Your task to perform on an android device: search for starred emails in the gmail app Image 0: 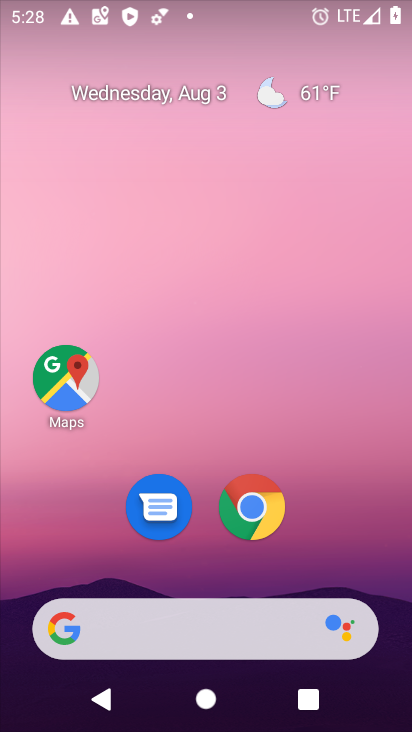
Step 0: drag from (323, 504) to (377, 96)
Your task to perform on an android device: search for starred emails in the gmail app Image 1: 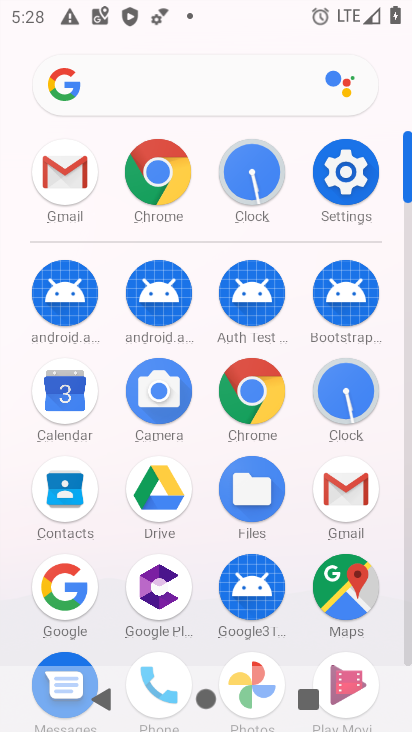
Step 1: click (356, 492)
Your task to perform on an android device: search for starred emails in the gmail app Image 2: 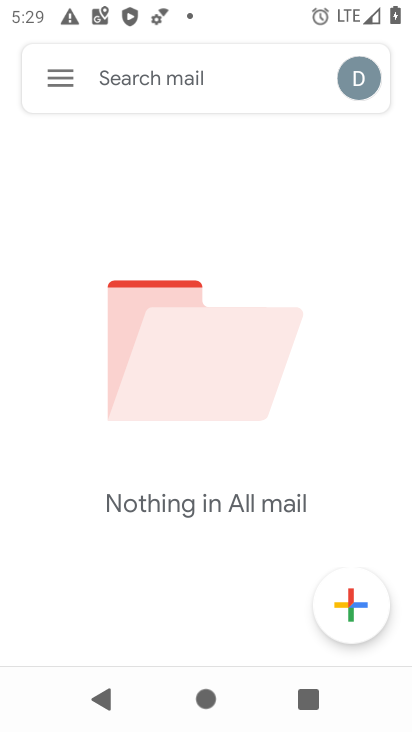
Step 2: click (66, 72)
Your task to perform on an android device: search for starred emails in the gmail app Image 3: 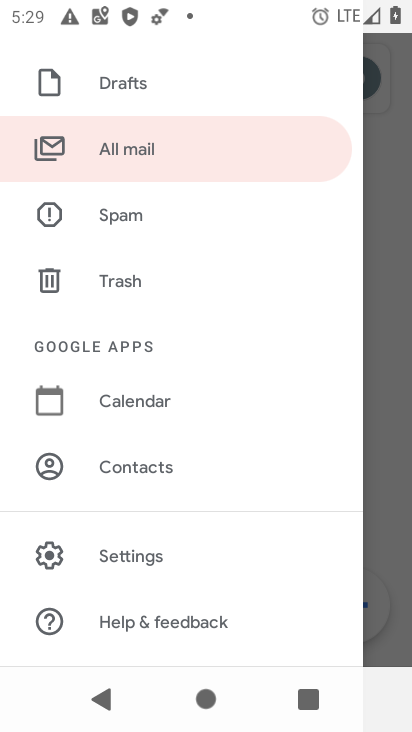
Step 3: drag from (234, 249) to (151, 617)
Your task to perform on an android device: search for starred emails in the gmail app Image 4: 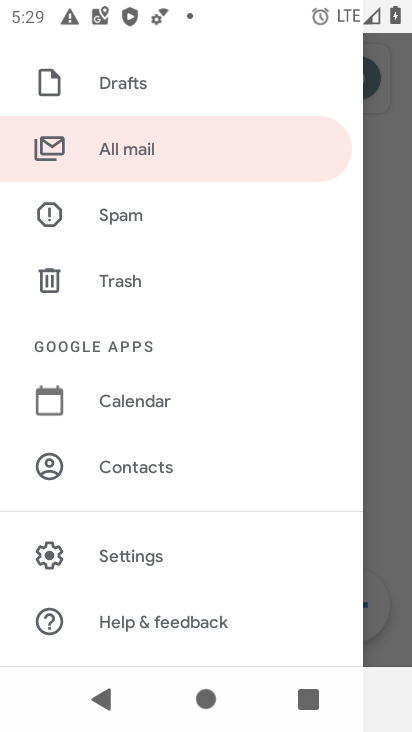
Step 4: drag from (126, 173) to (136, 606)
Your task to perform on an android device: search for starred emails in the gmail app Image 5: 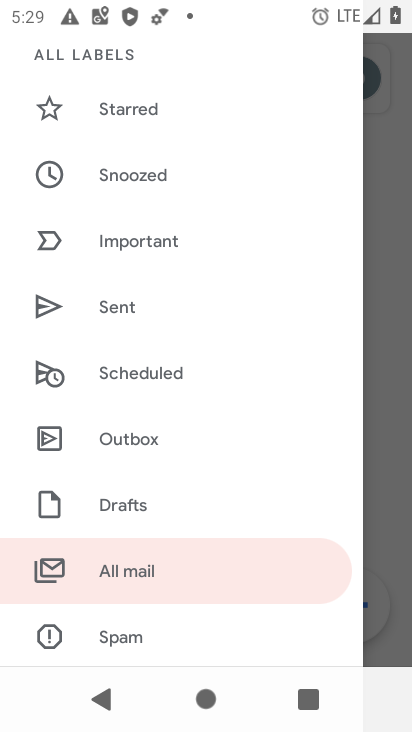
Step 5: click (141, 95)
Your task to perform on an android device: search for starred emails in the gmail app Image 6: 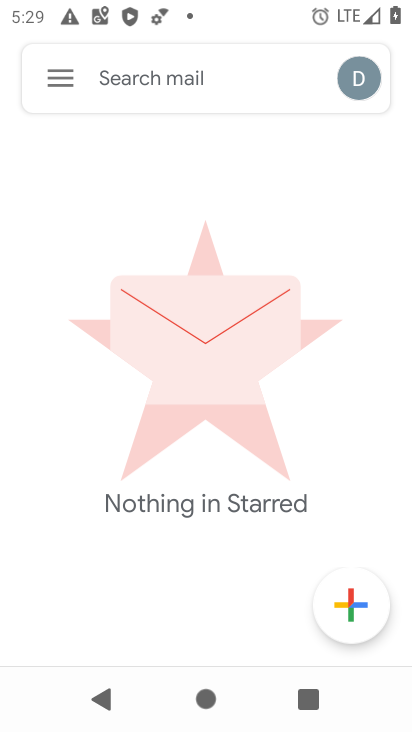
Step 6: task complete